Your task to perform on an android device: change notifications settings Image 0: 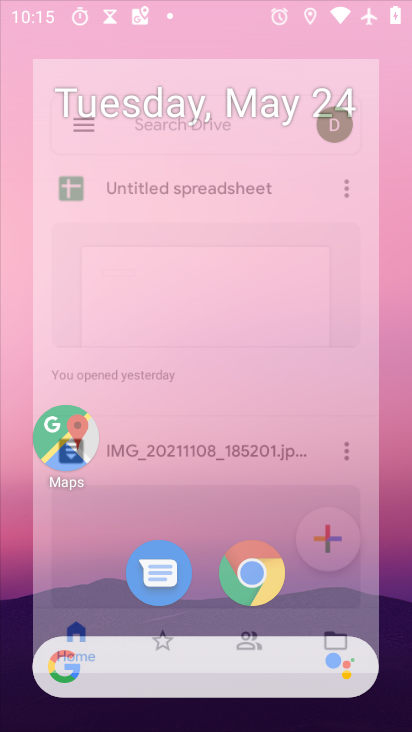
Step 0: drag from (357, 383) to (347, 46)
Your task to perform on an android device: change notifications settings Image 1: 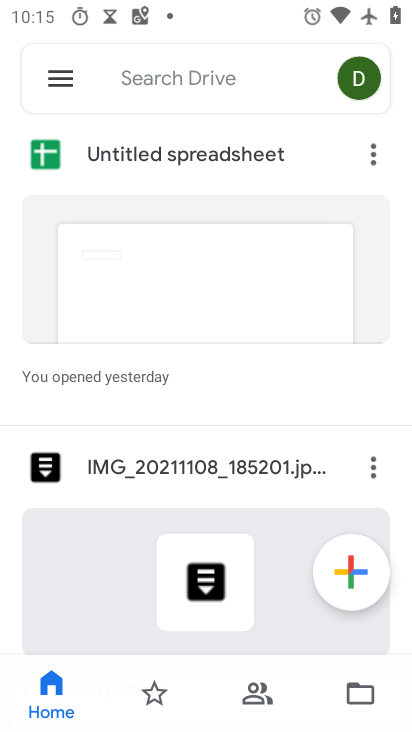
Step 1: press home button
Your task to perform on an android device: change notifications settings Image 2: 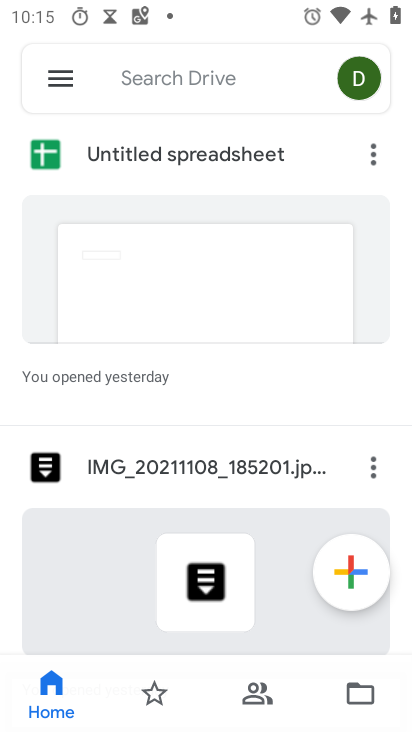
Step 2: drag from (347, 46) to (389, 149)
Your task to perform on an android device: change notifications settings Image 3: 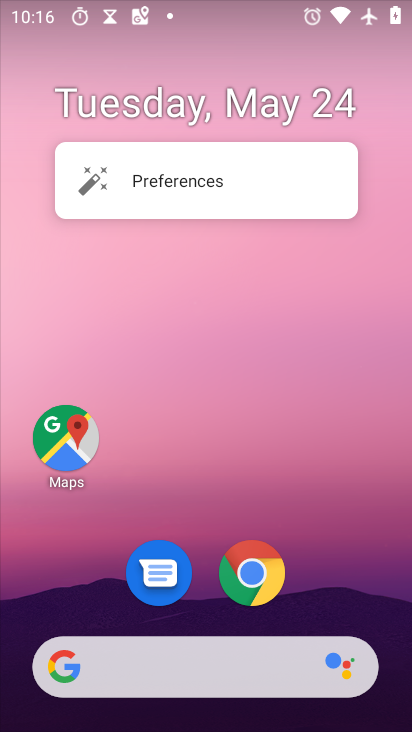
Step 3: drag from (345, 544) to (344, 17)
Your task to perform on an android device: change notifications settings Image 4: 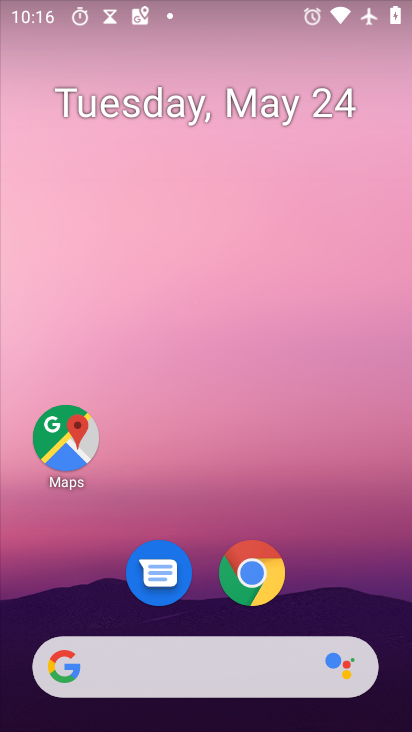
Step 4: drag from (330, 557) to (361, 24)
Your task to perform on an android device: change notifications settings Image 5: 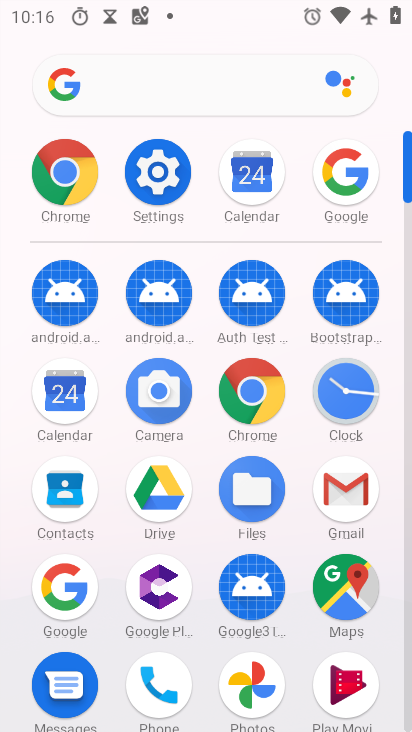
Step 5: click (162, 188)
Your task to perform on an android device: change notifications settings Image 6: 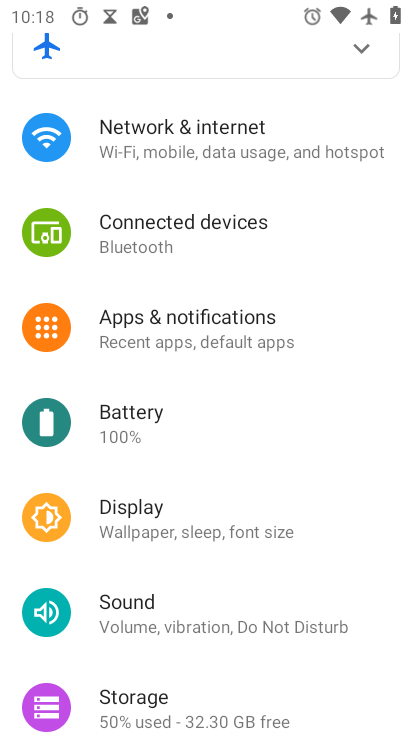
Step 6: click (237, 334)
Your task to perform on an android device: change notifications settings Image 7: 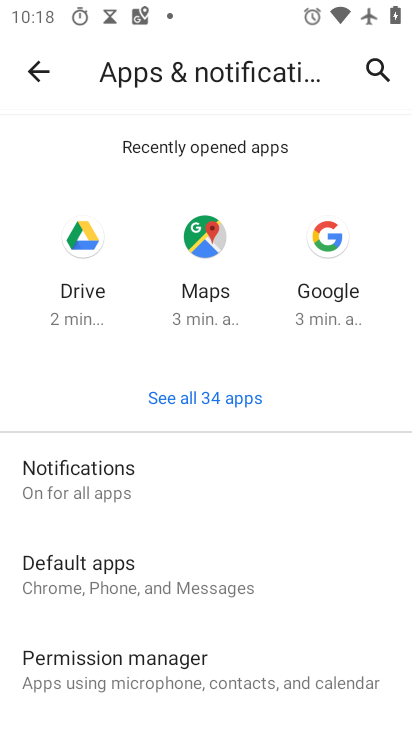
Step 7: click (106, 490)
Your task to perform on an android device: change notifications settings Image 8: 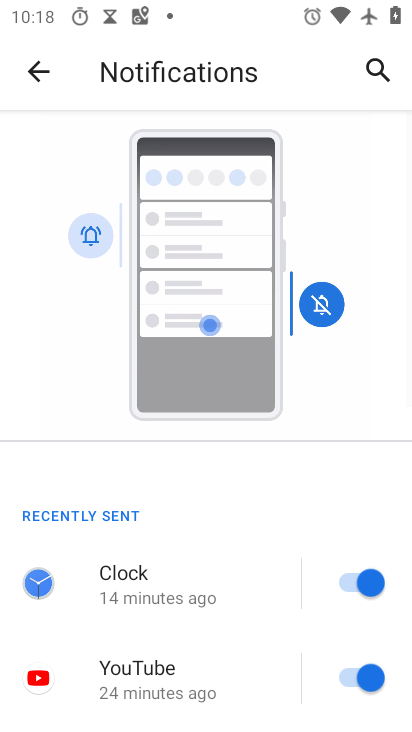
Step 8: task complete